Your task to perform on an android device: Open settings on Google Maps Image 0: 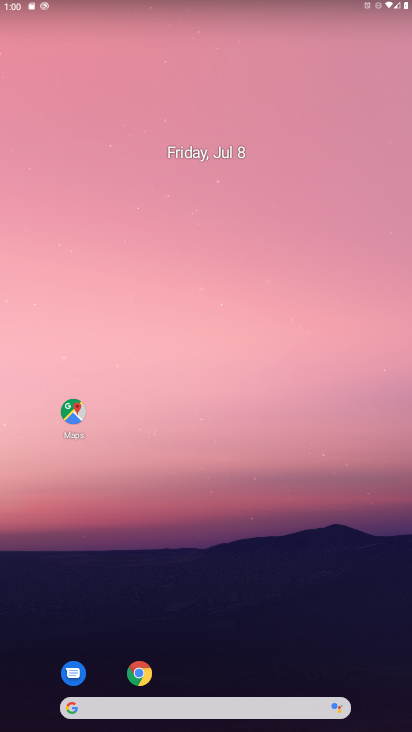
Step 0: drag from (399, 680) to (349, 257)
Your task to perform on an android device: Open settings on Google Maps Image 1: 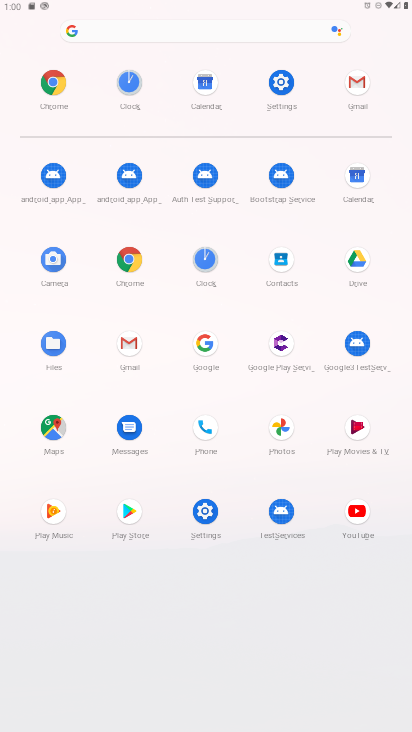
Step 1: click (48, 427)
Your task to perform on an android device: Open settings on Google Maps Image 2: 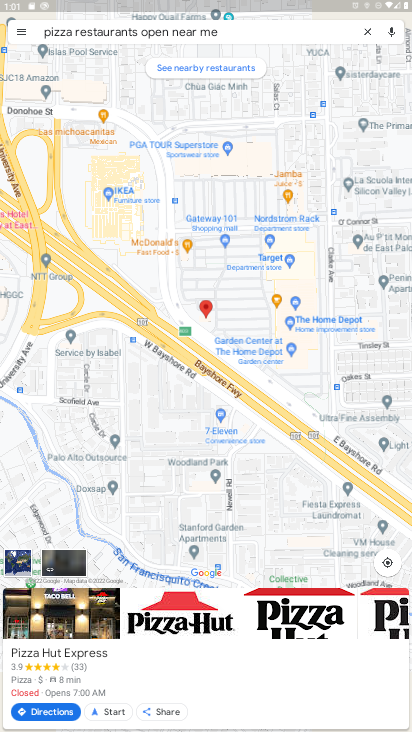
Step 2: task complete